Your task to perform on an android device: Go to settings Image 0: 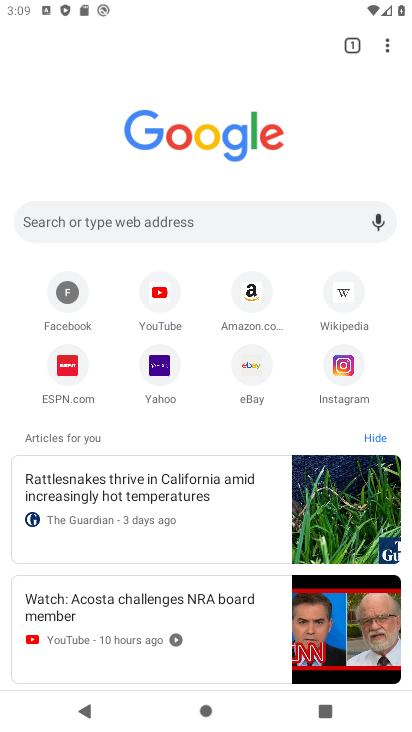
Step 0: click (379, 42)
Your task to perform on an android device: Go to settings Image 1: 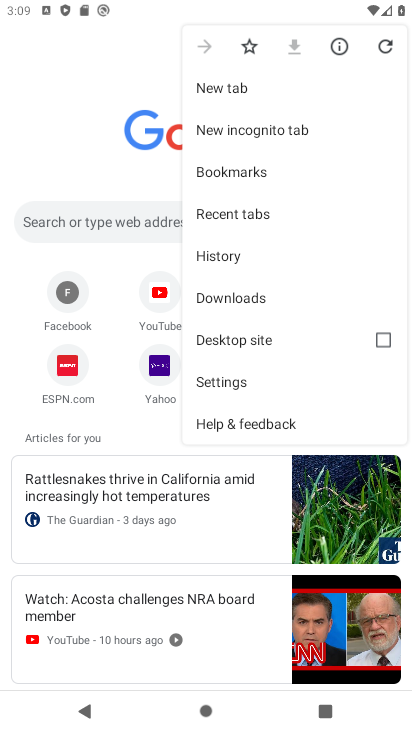
Step 1: click (212, 386)
Your task to perform on an android device: Go to settings Image 2: 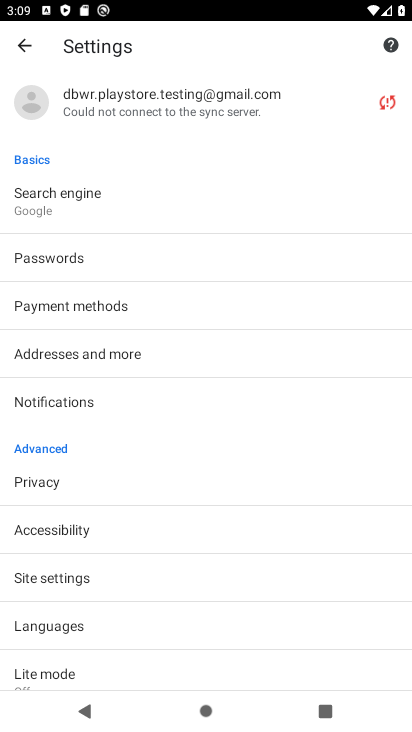
Step 2: task complete